Your task to perform on an android device: Open internet settings Image 0: 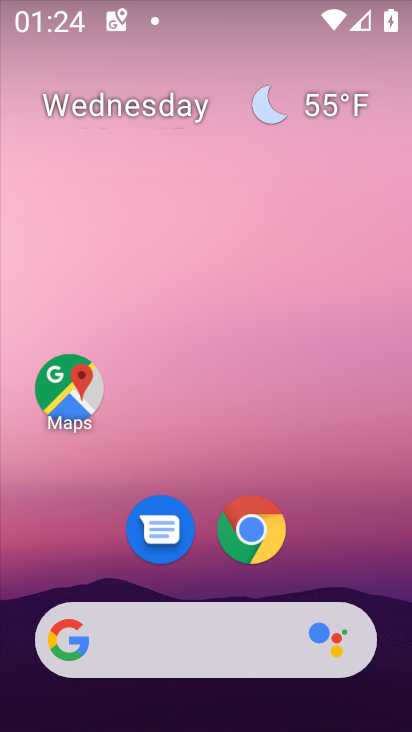
Step 0: drag from (219, 720) to (206, 161)
Your task to perform on an android device: Open internet settings Image 1: 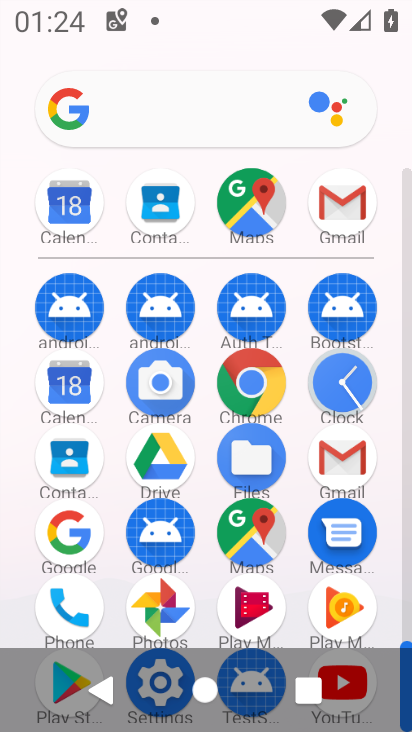
Step 1: drag from (204, 619) to (204, 320)
Your task to perform on an android device: Open internet settings Image 2: 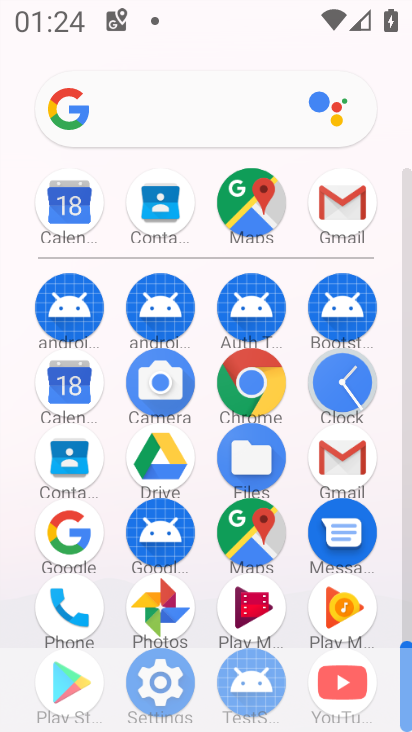
Step 2: click (160, 665)
Your task to perform on an android device: Open internet settings Image 3: 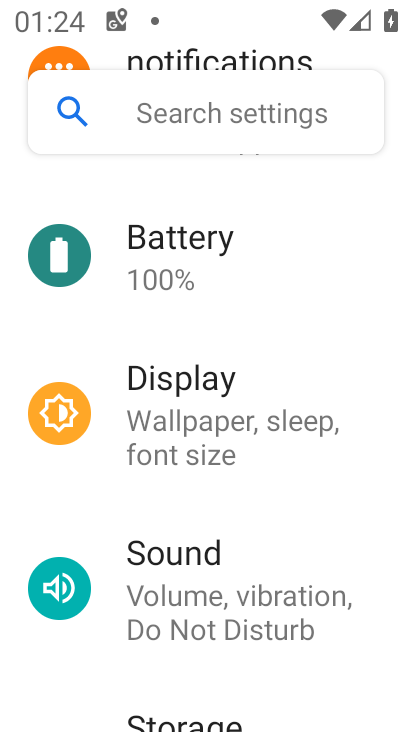
Step 3: drag from (206, 205) to (193, 600)
Your task to perform on an android device: Open internet settings Image 4: 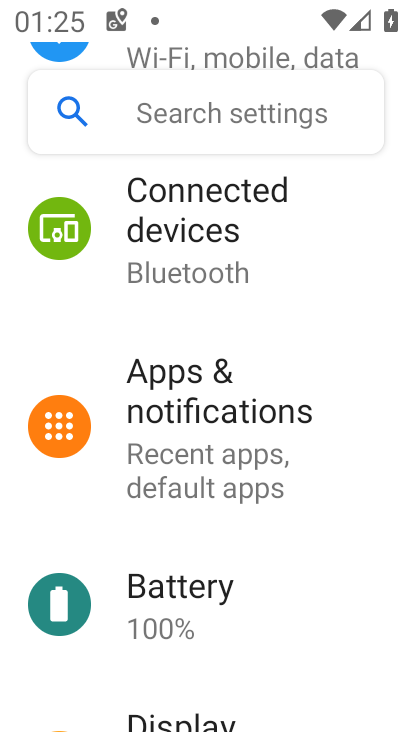
Step 4: drag from (199, 225) to (197, 542)
Your task to perform on an android device: Open internet settings Image 5: 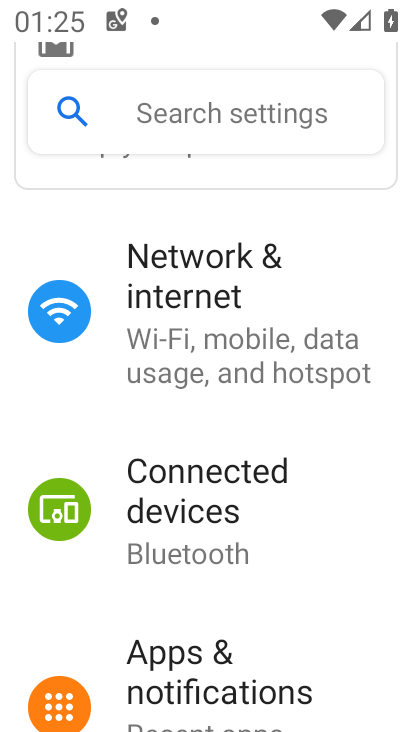
Step 5: click (186, 326)
Your task to perform on an android device: Open internet settings Image 6: 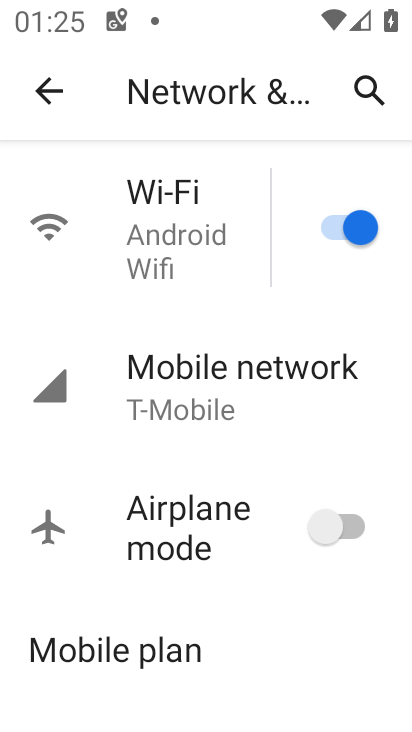
Step 6: task complete